Your task to perform on an android device: turn on the 12-hour format for clock Image 0: 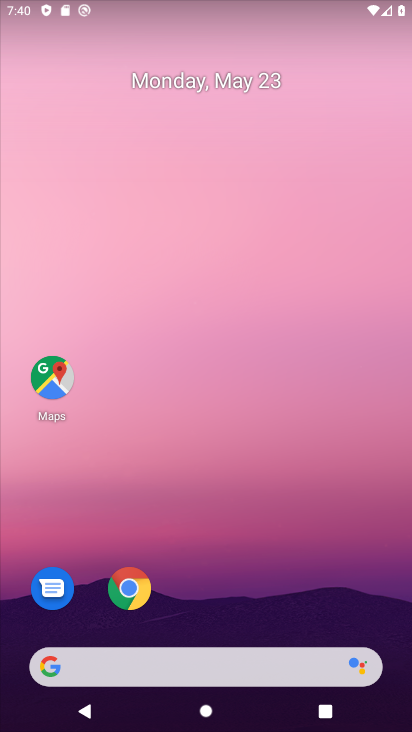
Step 0: drag from (387, 507) to (341, 251)
Your task to perform on an android device: turn on the 12-hour format for clock Image 1: 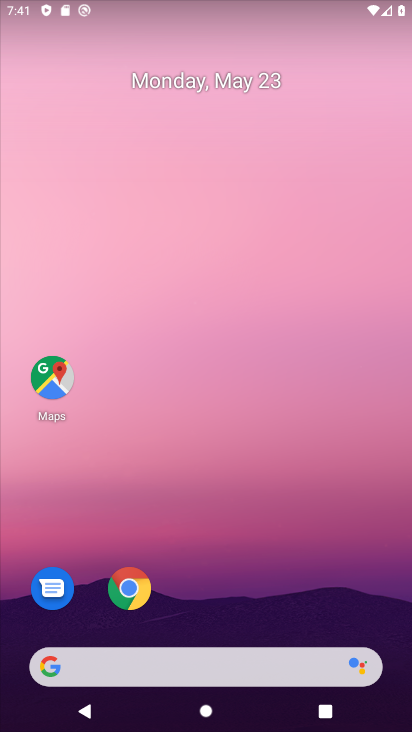
Step 1: drag from (395, 681) to (358, 297)
Your task to perform on an android device: turn on the 12-hour format for clock Image 2: 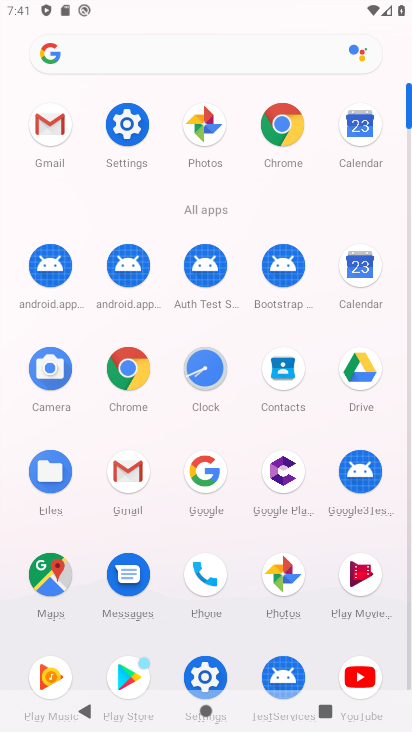
Step 2: click (120, 125)
Your task to perform on an android device: turn on the 12-hour format for clock Image 3: 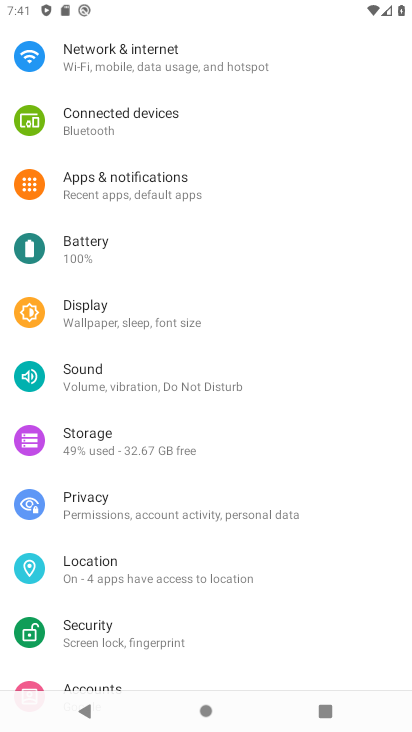
Step 3: press home button
Your task to perform on an android device: turn on the 12-hour format for clock Image 4: 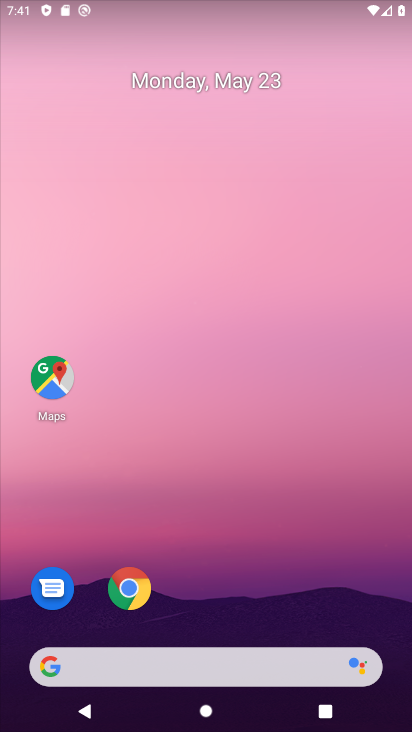
Step 4: drag from (394, 710) to (367, 204)
Your task to perform on an android device: turn on the 12-hour format for clock Image 5: 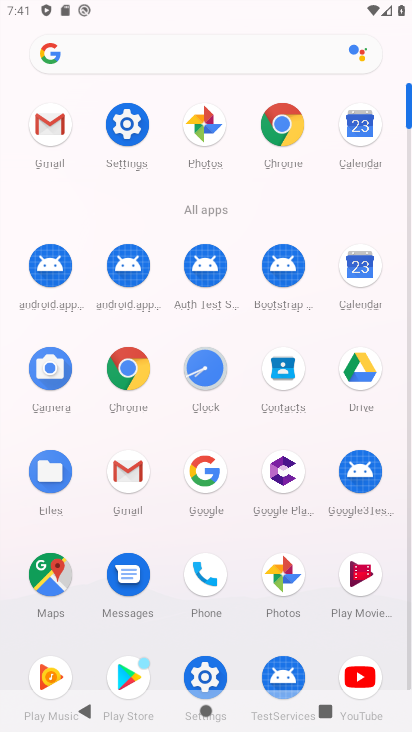
Step 5: click (132, 128)
Your task to perform on an android device: turn on the 12-hour format for clock Image 6: 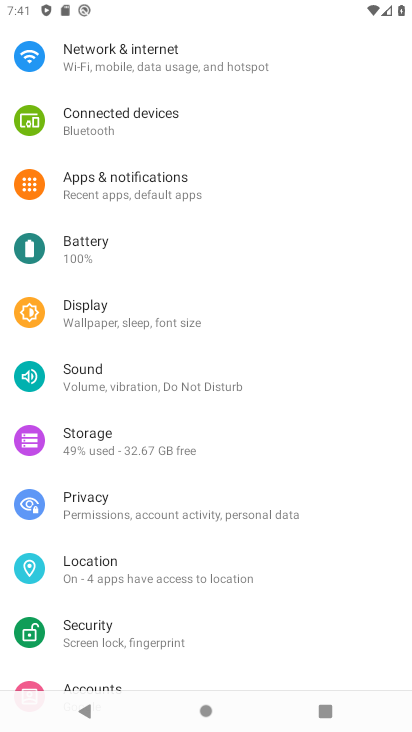
Step 6: press back button
Your task to perform on an android device: turn on the 12-hour format for clock Image 7: 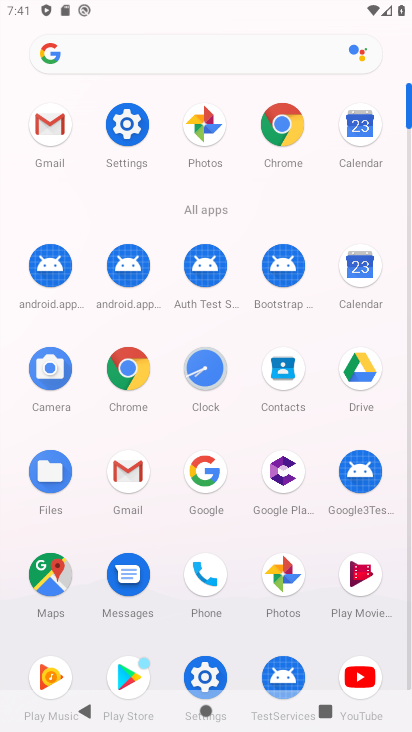
Step 7: click (200, 369)
Your task to perform on an android device: turn on the 12-hour format for clock Image 8: 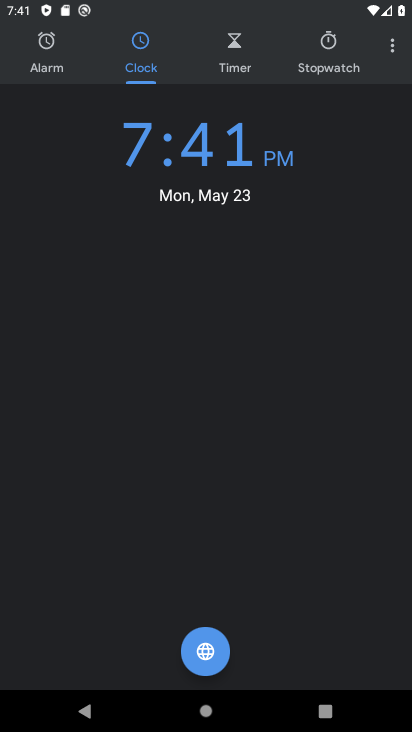
Step 8: click (394, 46)
Your task to perform on an android device: turn on the 12-hour format for clock Image 9: 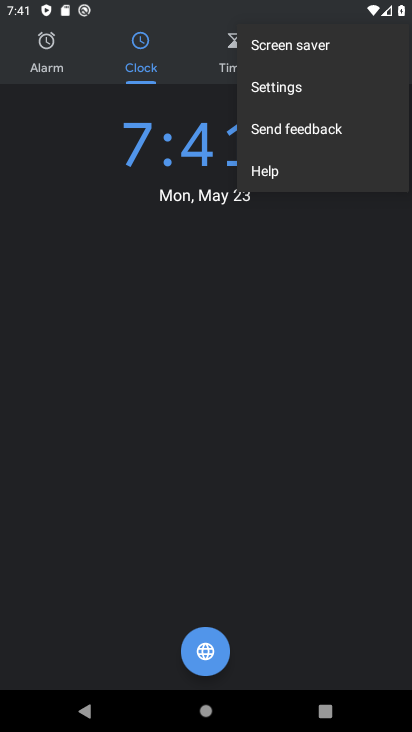
Step 9: click (290, 91)
Your task to perform on an android device: turn on the 12-hour format for clock Image 10: 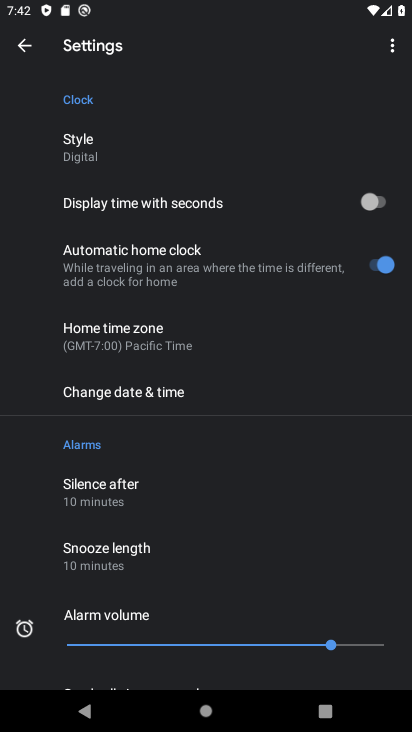
Step 10: click (110, 391)
Your task to perform on an android device: turn on the 12-hour format for clock Image 11: 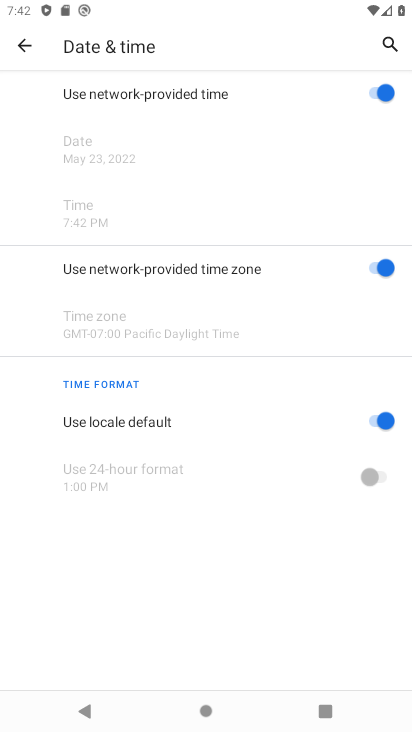
Step 11: task complete